Your task to perform on an android device: set the timer Image 0: 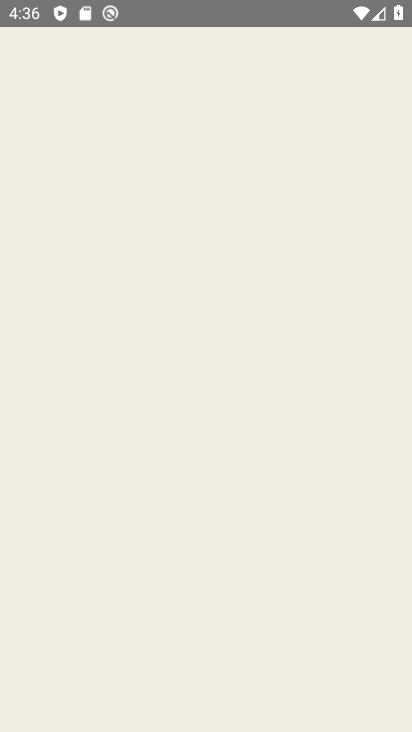
Step 0: drag from (198, 602) to (322, 22)
Your task to perform on an android device: set the timer Image 1: 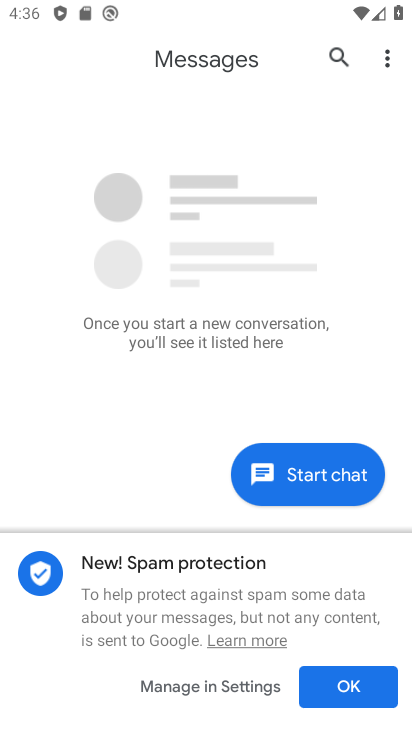
Step 1: press home button
Your task to perform on an android device: set the timer Image 2: 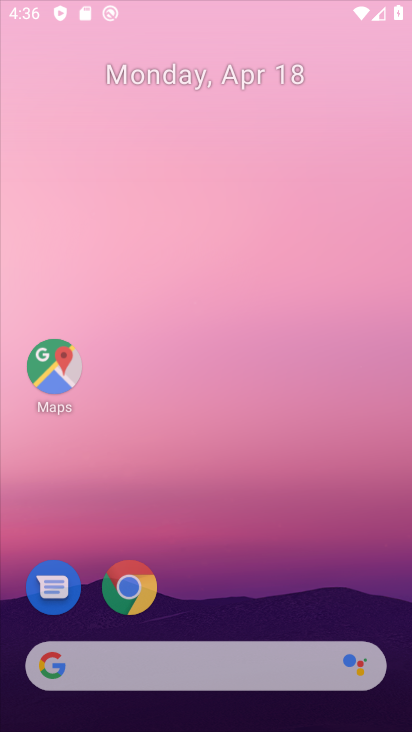
Step 2: press home button
Your task to perform on an android device: set the timer Image 3: 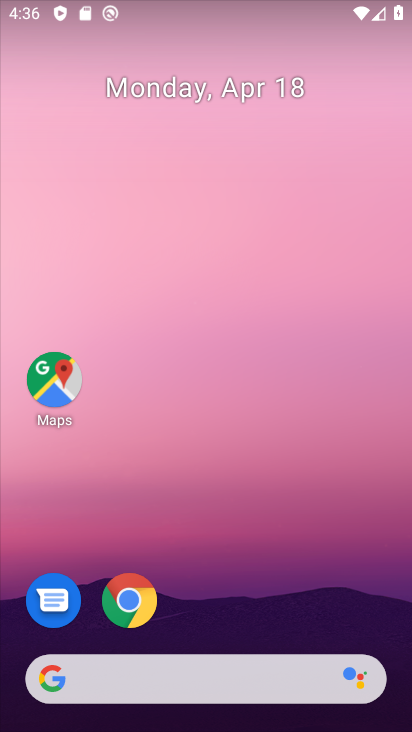
Step 3: drag from (190, 640) to (356, 14)
Your task to perform on an android device: set the timer Image 4: 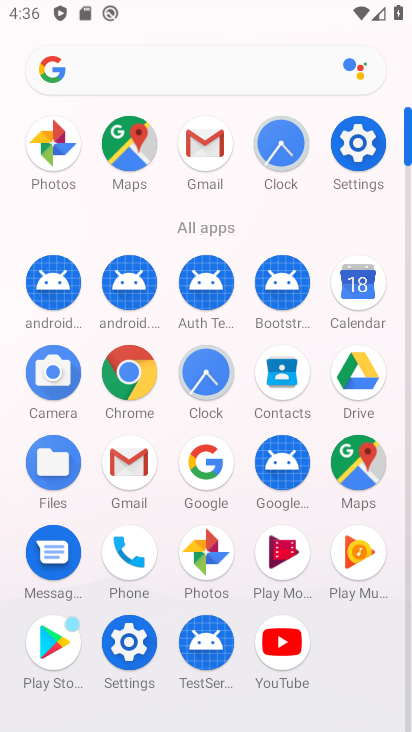
Step 4: click (283, 151)
Your task to perform on an android device: set the timer Image 5: 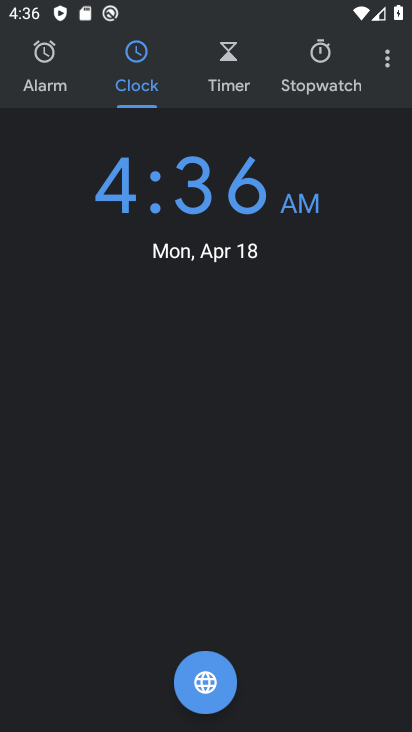
Step 5: click (243, 78)
Your task to perform on an android device: set the timer Image 6: 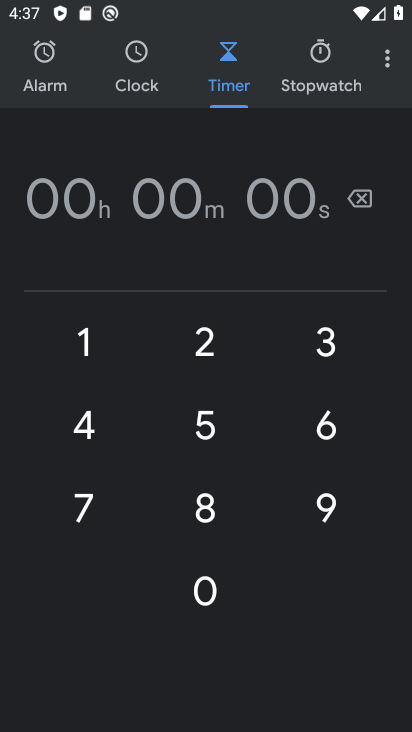
Step 6: click (82, 348)
Your task to perform on an android device: set the timer Image 7: 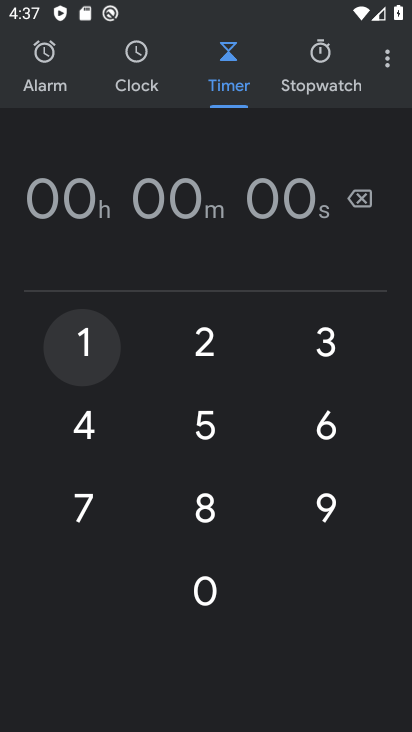
Step 7: click (82, 347)
Your task to perform on an android device: set the timer Image 8: 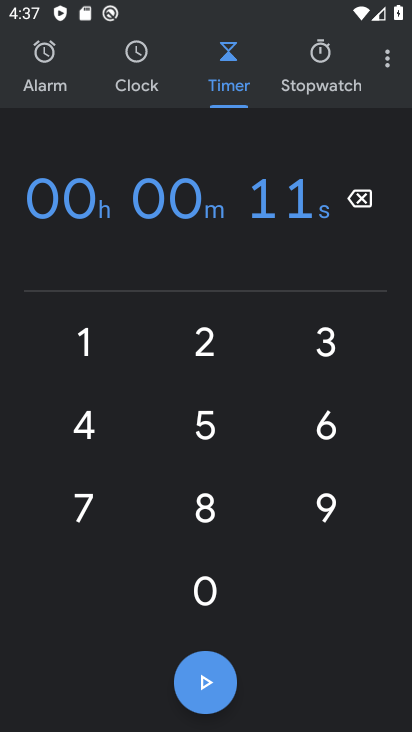
Step 8: click (212, 429)
Your task to perform on an android device: set the timer Image 9: 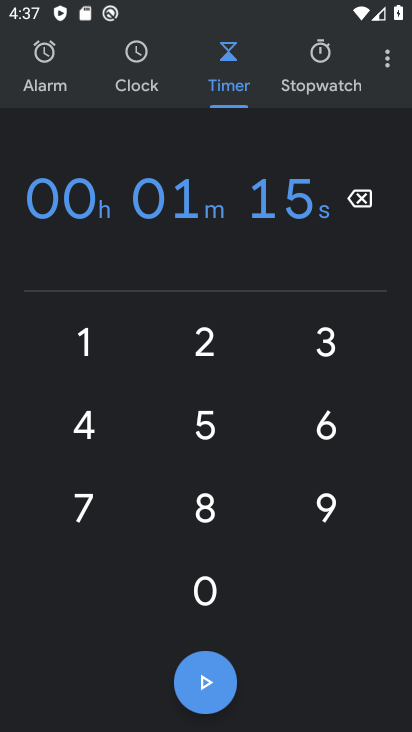
Step 9: click (212, 426)
Your task to perform on an android device: set the timer Image 10: 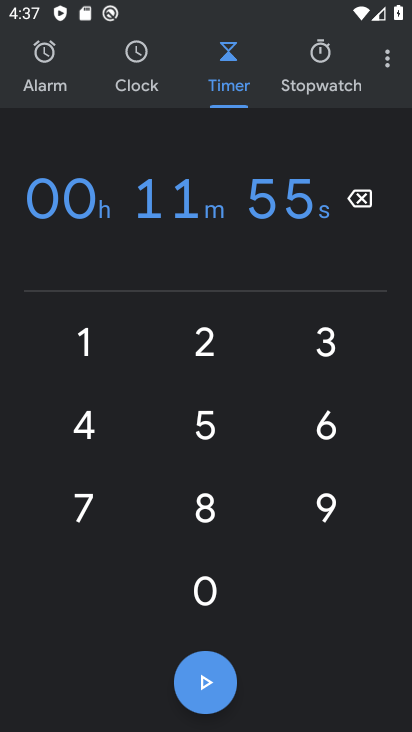
Step 10: click (205, 690)
Your task to perform on an android device: set the timer Image 11: 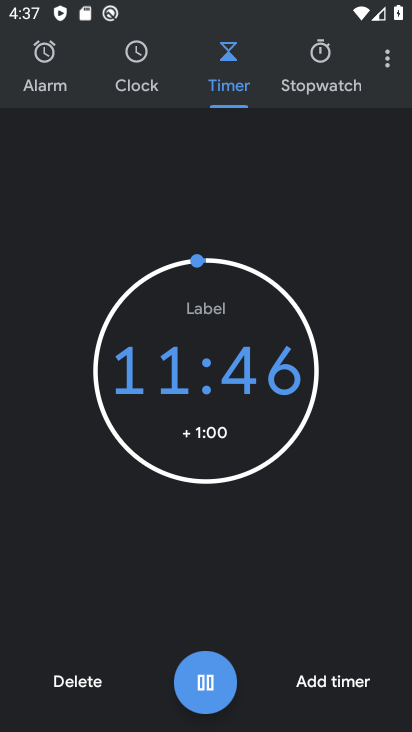
Step 11: task complete